Your task to perform on an android device: What's the news this month? Image 0: 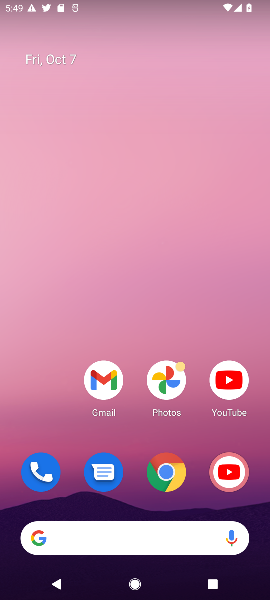
Step 0: click (176, 486)
Your task to perform on an android device: What's the news this month? Image 1: 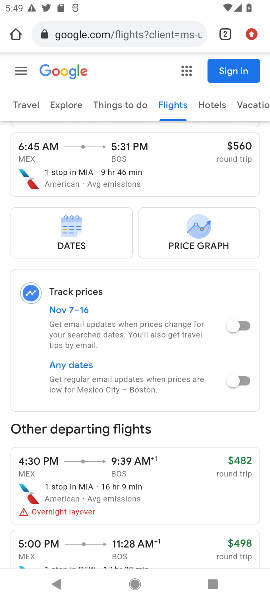
Step 1: click (159, 33)
Your task to perform on an android device: What's the news this month? Image 2: 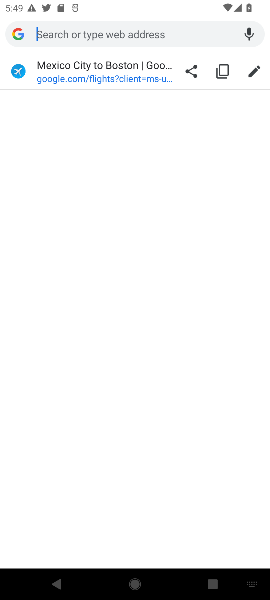
Step 2: type "news this month"
Your task to perform on an android device: What's the news this month? Image 3: 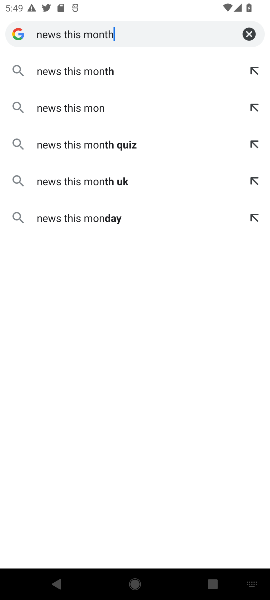
Step 3: press enter
Your task to perform on an android device: What's the news this month? Image 4: 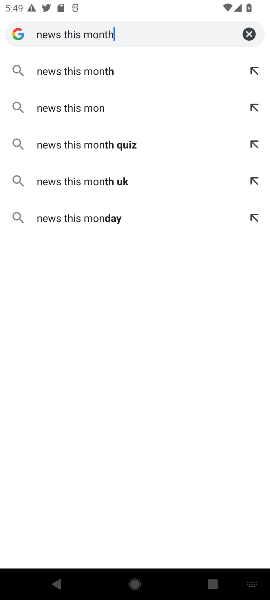
Step 4: type ""
Your task to perform on an android device: What's the news this month? Image 5: 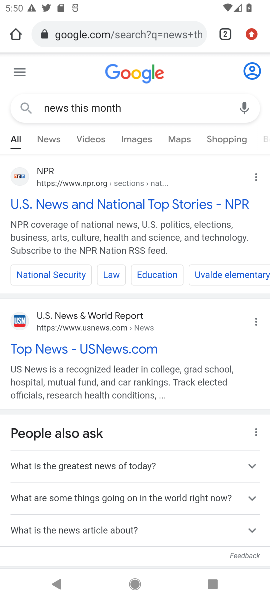
Step 5: click (54, 139)
Your task to perform on an android device: What's the news this month? Image 6: 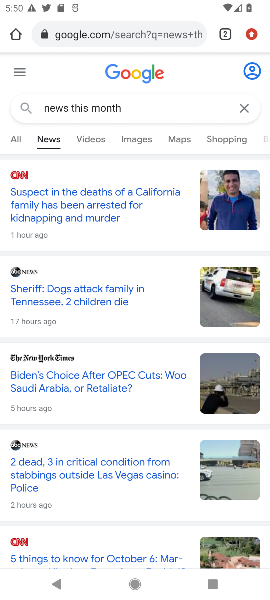
Step 6: task complete